Your task to perform on an android device: turn on the 12-hour format for clock Image 0: 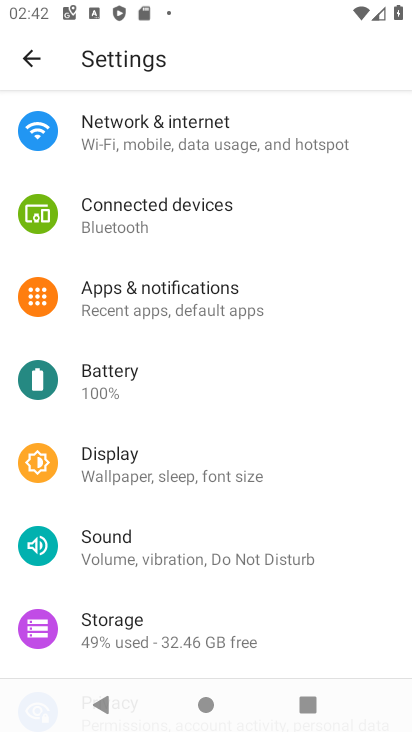
Step 0: press home button
Your task to perform on an android device: turn on the 12-hour format for clock Image 1: 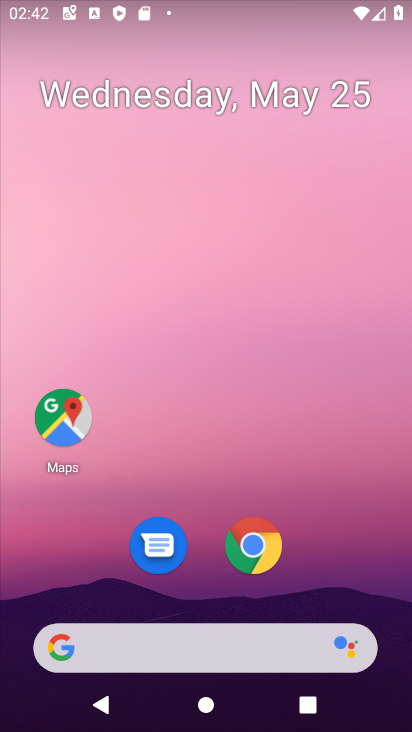
Step 1: drag from (341, 579) to (329, 404)
Your task to perform on an android device: turn on the 12-hour format for clock Image 2: 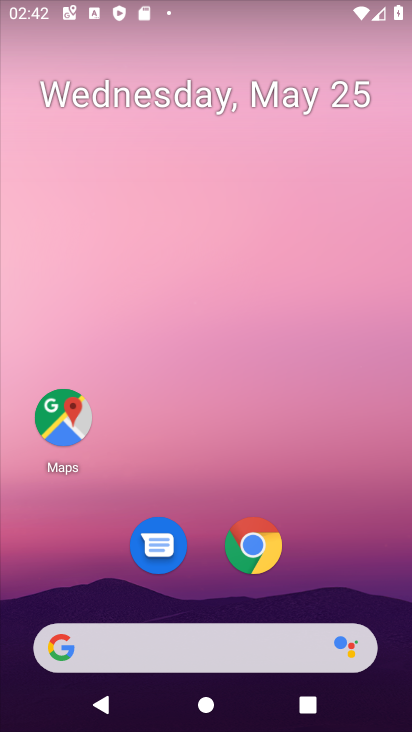
Step 2: drag from (337, 563) to (281, 184)
Your task to perform on an android device: turn on the 12-hour format for clock Image 3: 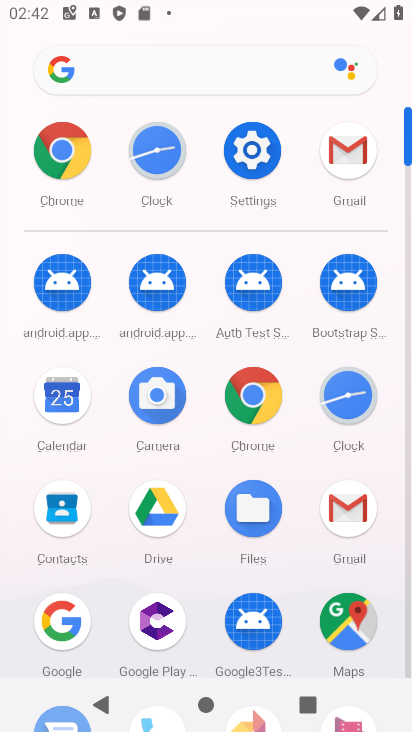
Step 3: click (259, 177)
Your task to perform on an android device: turn on the 12-hour format for clock Image 4: 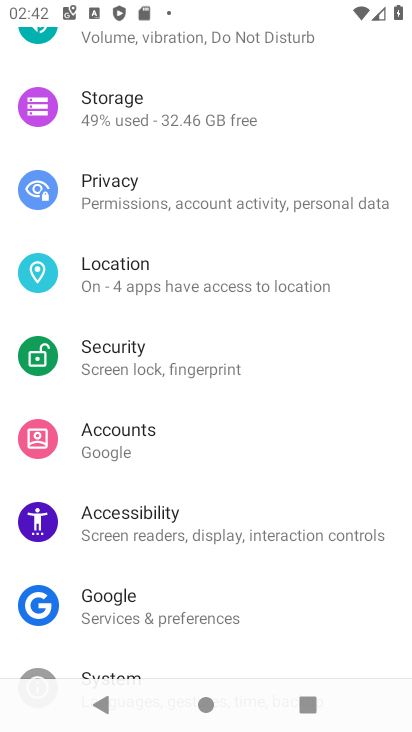
Step 4: press back button
Your task to perform on an android device: turn on the 12-hour format for clock Image 5: 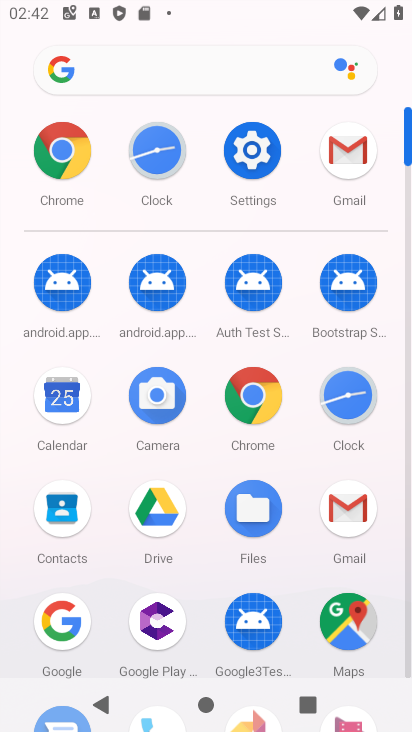
Step 5: click (332, 401)
Your task to perform on an android device: turn on the 12-hour format for clock Image 6: 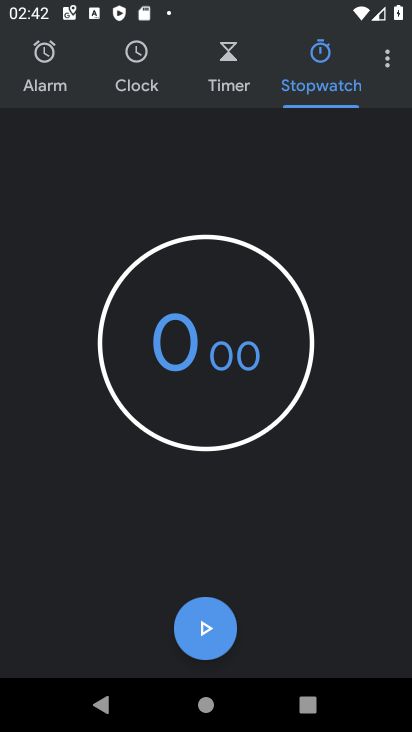
Step 6: click (385, 57)
Your task to perform on an android device: turn on the 12-hour format for clock Image 7: 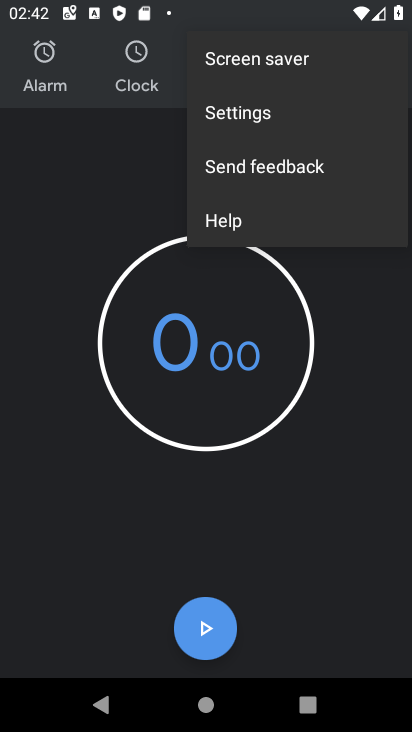
Step 7: click (283, 118)
Your task to perform on an android device: turn on the 12-hour format for clock Image 8: 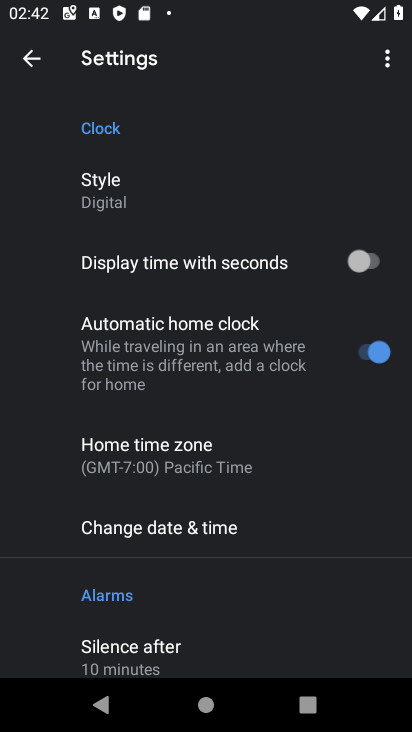
Step 8: click (173, 529)
Your task to perform on an android device: turn on the 12-hour format for clock Image 9: 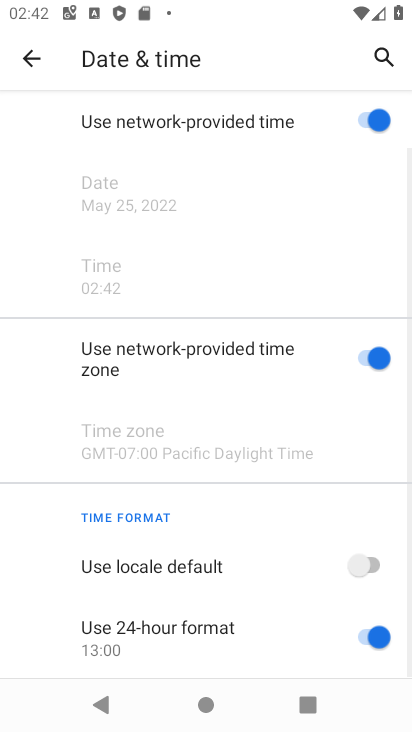
Step 9: click (273, 621)
Your task to perform on an android device: turn on the 12-hour format for clock Image 10: 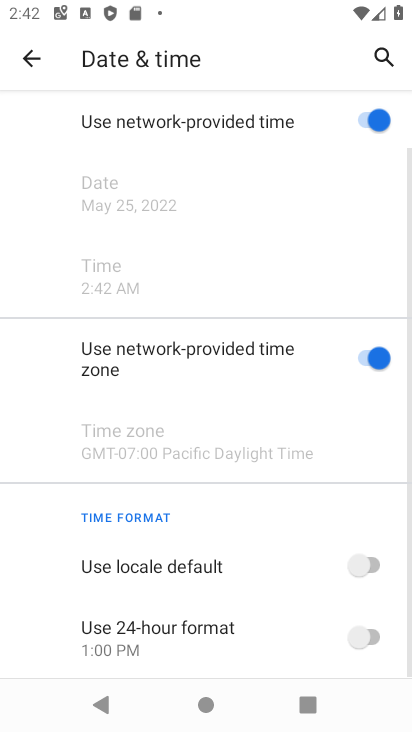
Step 10: task complete